Your task to perform on an android device: Open eBay Image 0: 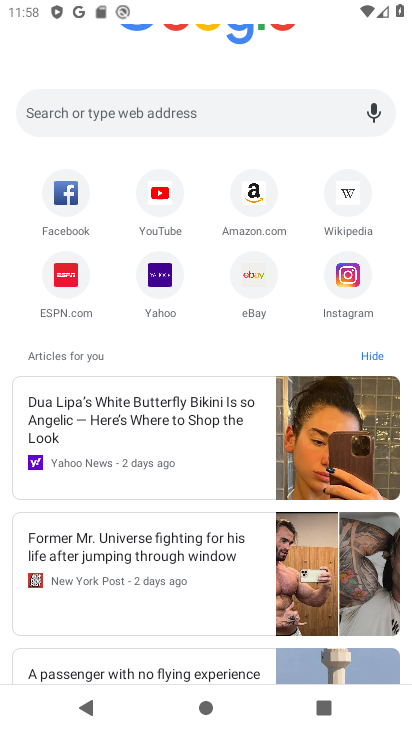
Step 0: click (181, 123)
Your task to perform on an android device: Open eBay Image 1: 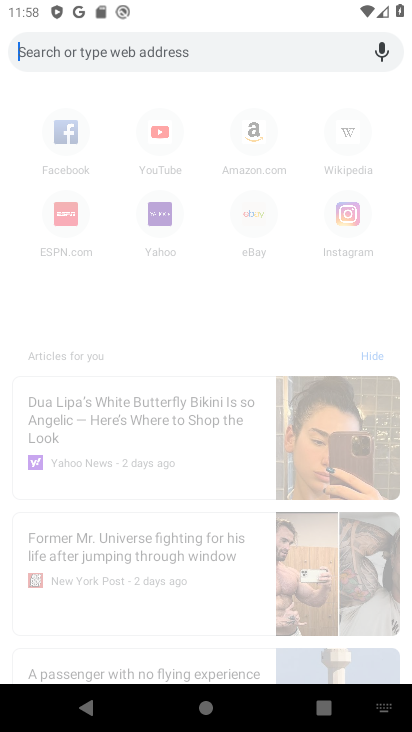
Step 1: click (243, 221)
Your task to perform on an android device: Open eBay Image 2: 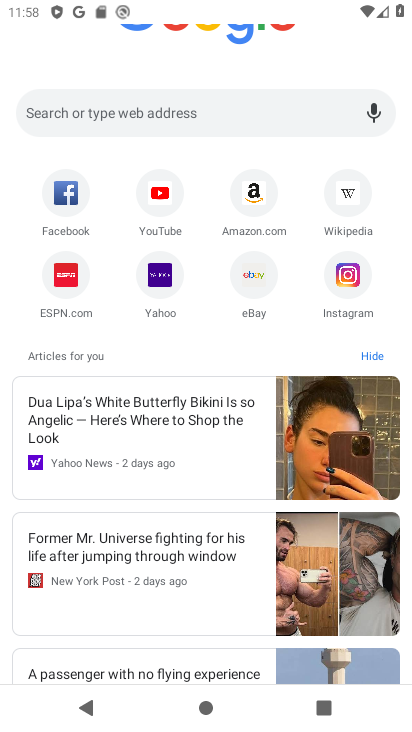
Step 2: click (262, 279)
Your task to perform on an android device: Open eBay Image 3: 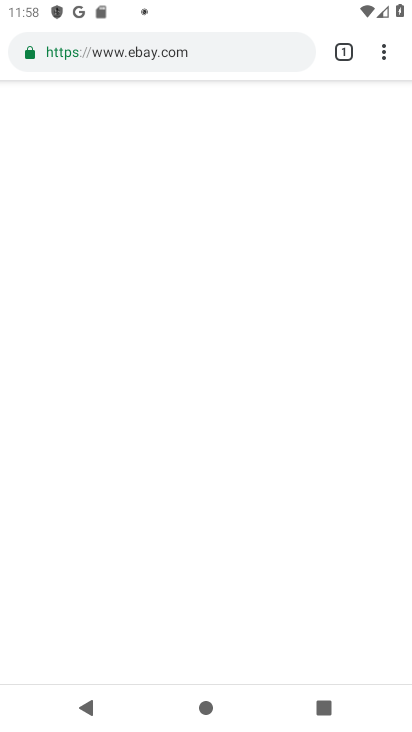
Step 3: task complete